Your task to perform on an android device: Go to CNN.com Image 0: 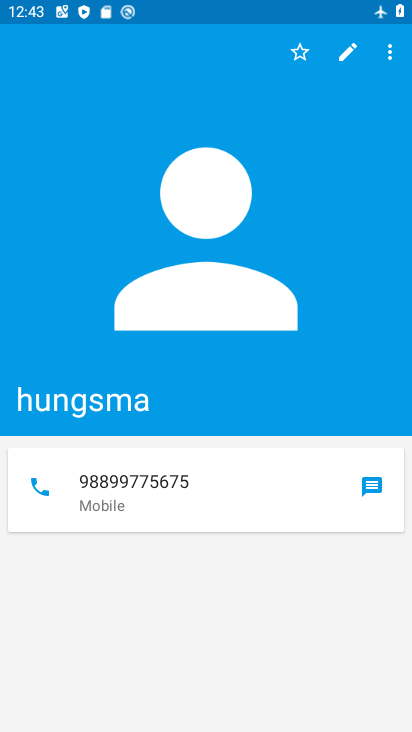
Step 0: press home button
Your task to perform on an android device: Go to CNN.com Image 1: 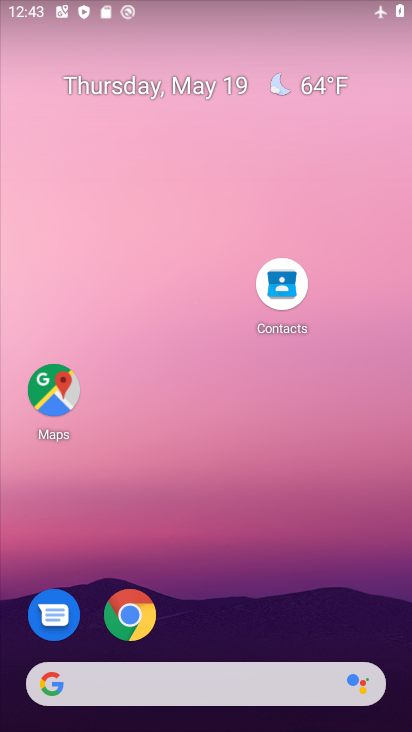
Step 1: click (147, 616)
Your task to perform on an android device: Go to CNN.com Image 2: 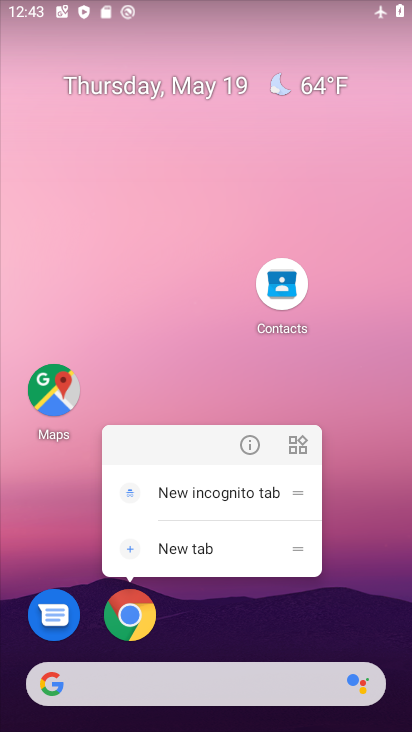
Step 2: click (145, 632)
Your task to perform on an android device: Go to CNN.com Image 3: 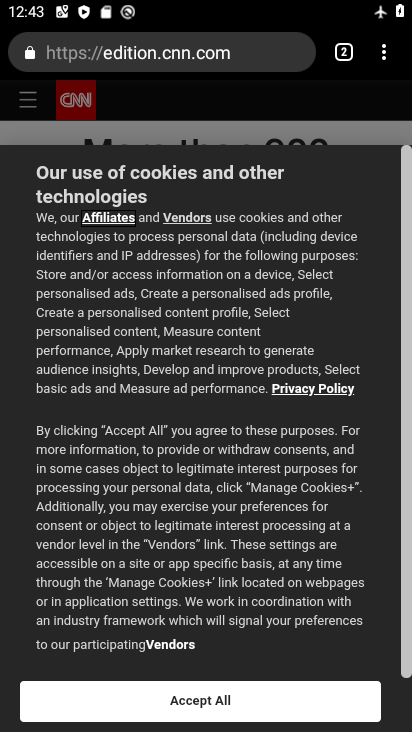
Step 3: task complete